Your task to perform on an android device: Go to privacy settings Image 0: 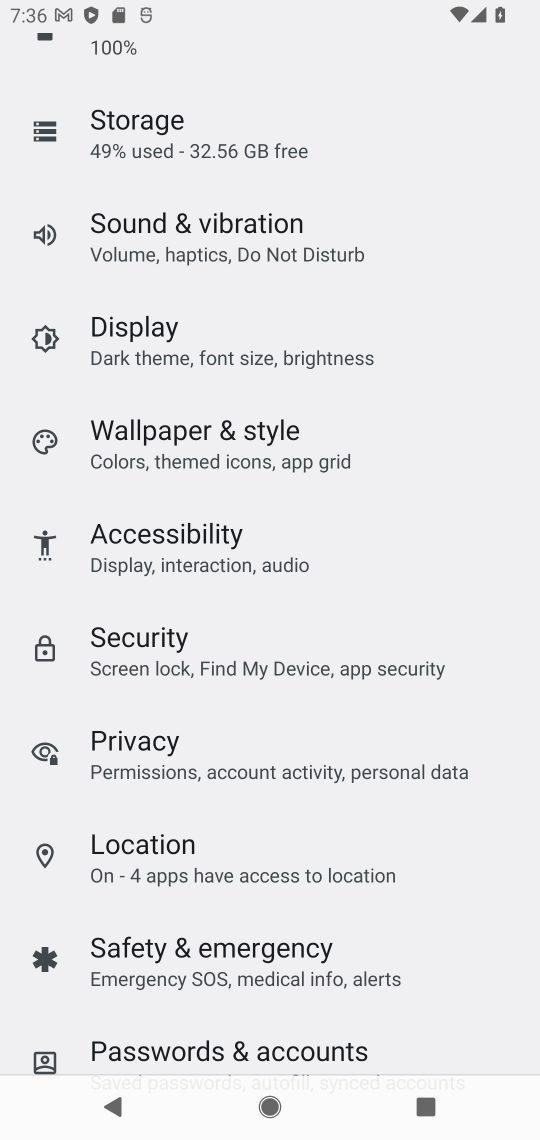
Step 0: click (356, 755)
Your task to perform on an android device: Go to privacy settings Image 1: 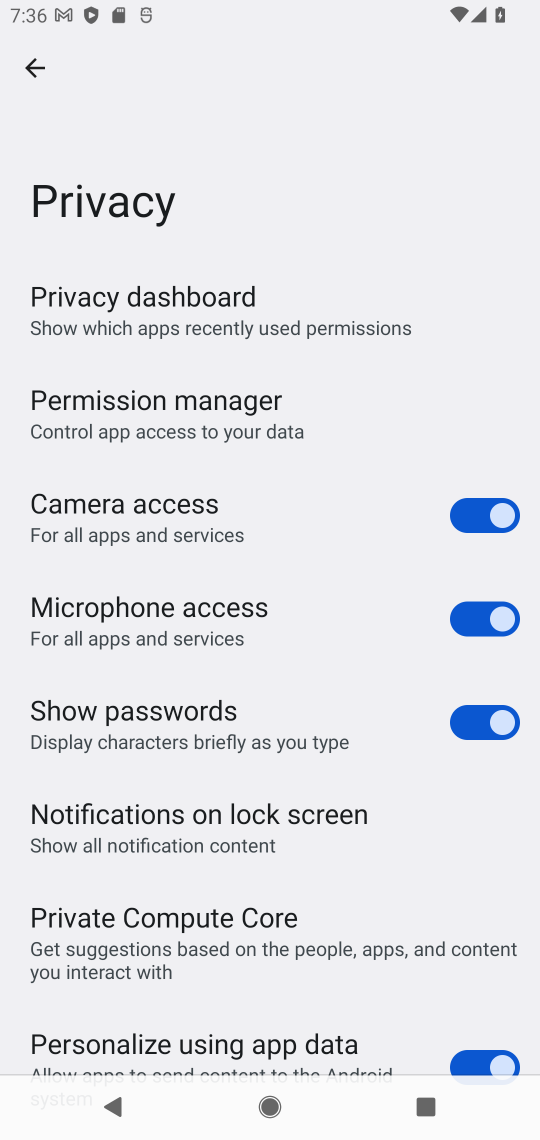
Step 1: task complete